Your task to perform on an android device: turn on notifications settings in the gmail app Image 0: 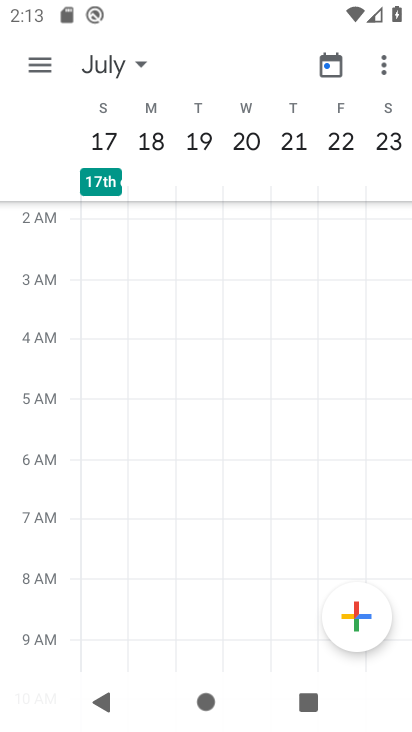
Step 0: press home button
Your task to perform on an android device: turn on notifications settings in the gmail app Image 1: 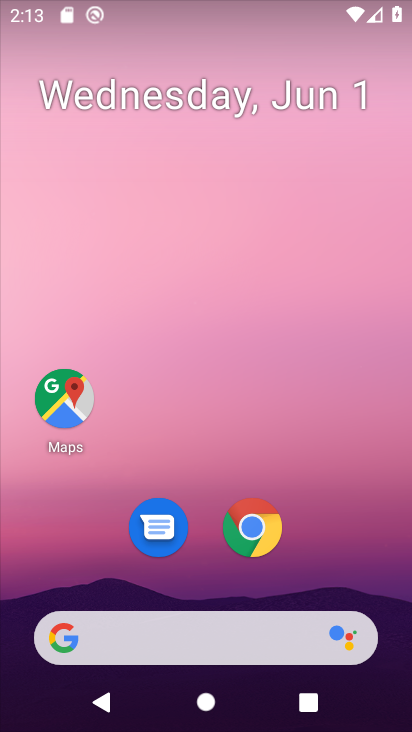
Step 1: drag from (225, 597) to (297, 152)
Your task to perform on an android device: turn on notifications settings in the gmail app Image 2: 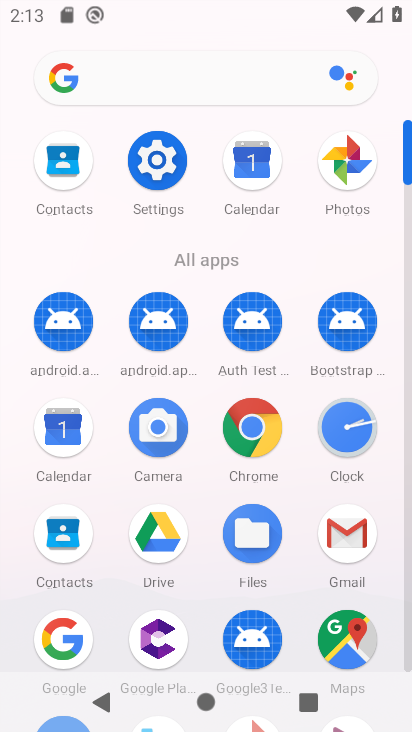
Step 2: click (340, 523)
Your task to perform on an android device: turn on notifications settings in the gmail app Image 3: 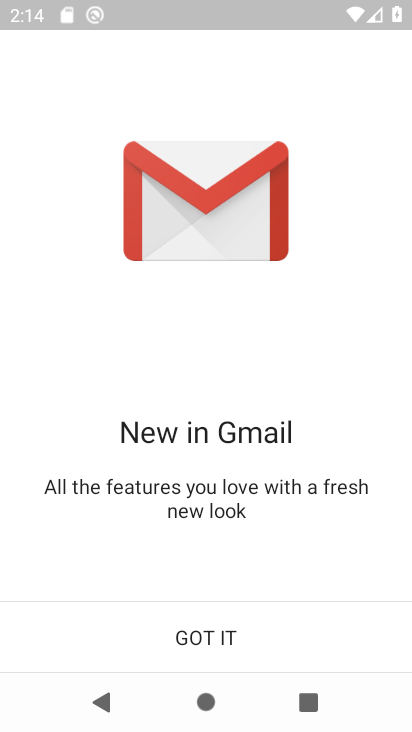
Step 3: click (177, 638)
Your task to perform on an android device: turn on notifications settings in the gmail app Image 4: 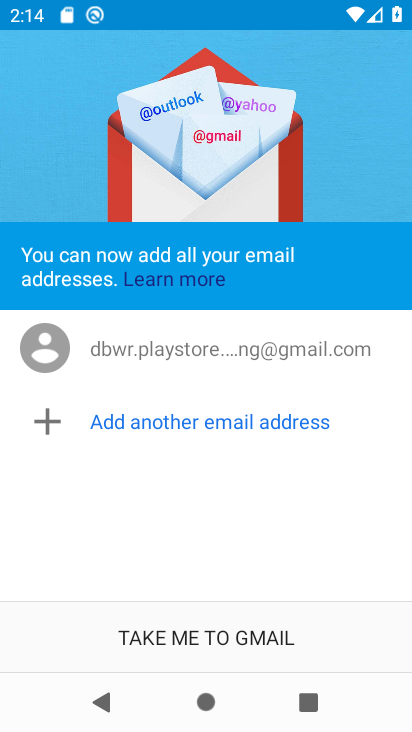
Step 4: click (132, 643)
Your task to perform on an android device: turn on notifications settings in the gmail app Image 5: 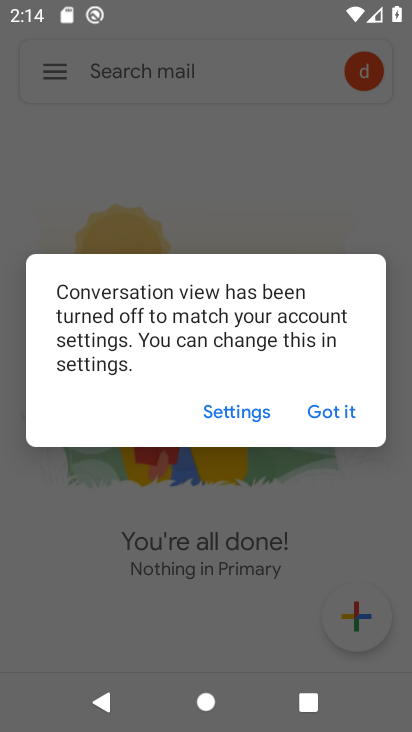
Step 5: click (246, 412)
Your task to perform on an android device: turn on notifications settings in the gmail app Image 6: 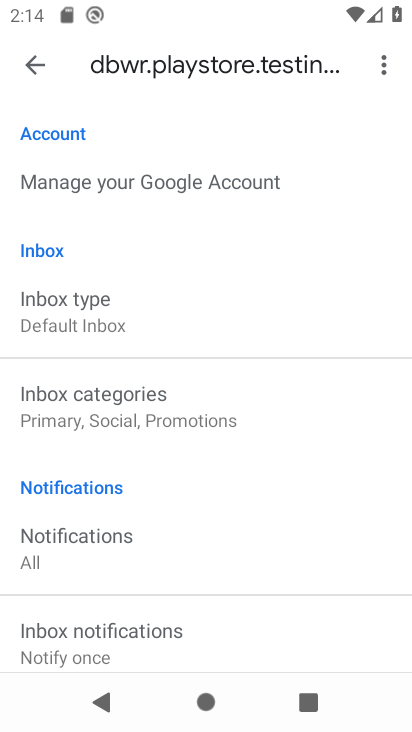
Step 6: click (37, 64)
Your task to perform on an android device: turn on notifications settings in the gmail app Image 7: 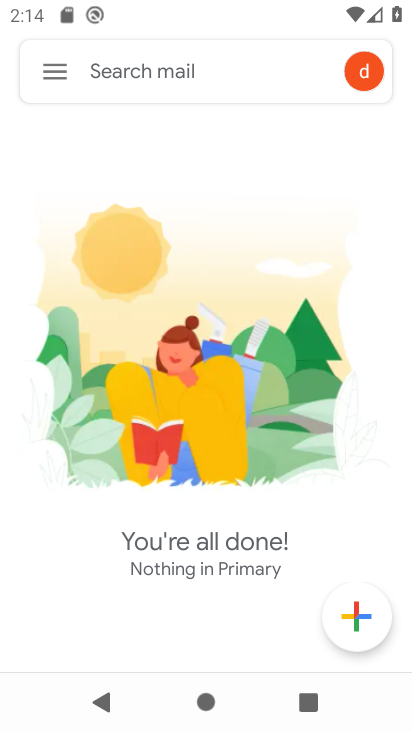
Step 7: click (63, 69)
Your task to perform on an android device: turn on notifications settings in the gmail app Image 8: 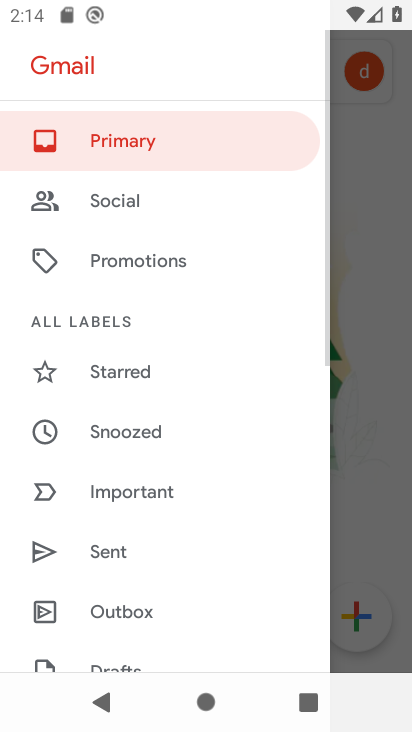
Step 8: drag from (93, 616) to (162, 239)
Your task to perform on an android device: turn on notifications settings in the gmail app Image 9: 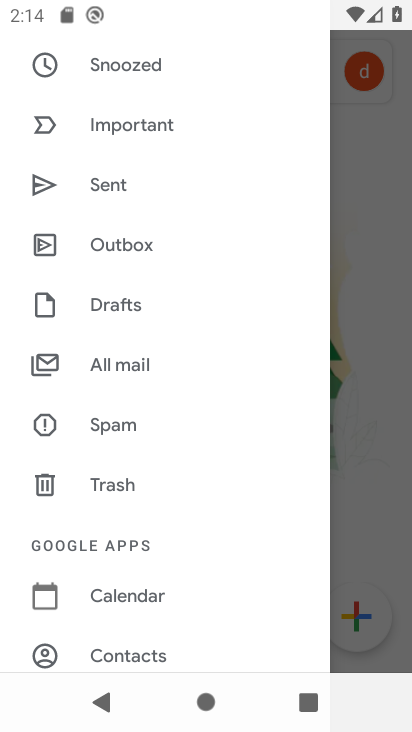
Step 9: drag from (137, 638) to (173, 84)
Your task to perform on an android device: turn on notifications settings in the gmail app Image 10: 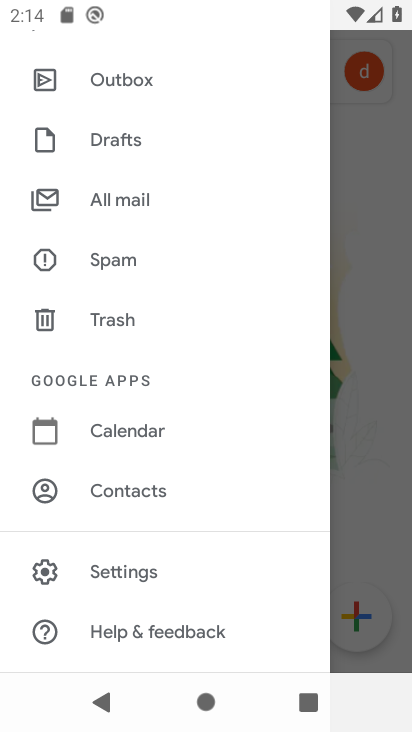
Step 10: click (138, 634)
Your task to perform on an android device: turn on notifications settings in the gmail app Image 11: 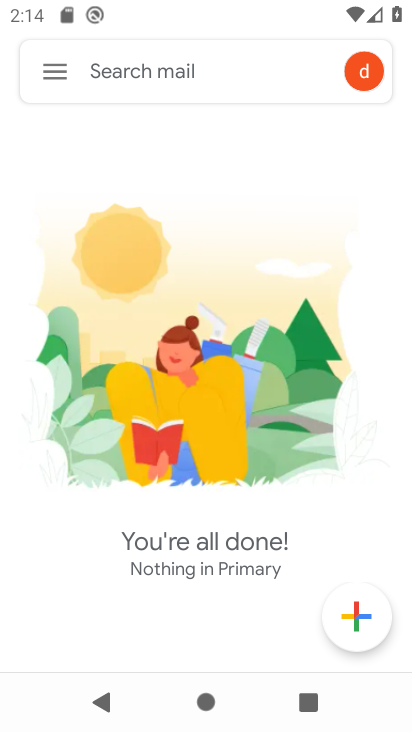
Step 11: click (112, 563)
Your task to perform on an android device: turn on notifications settings in the gmail app Image 12: 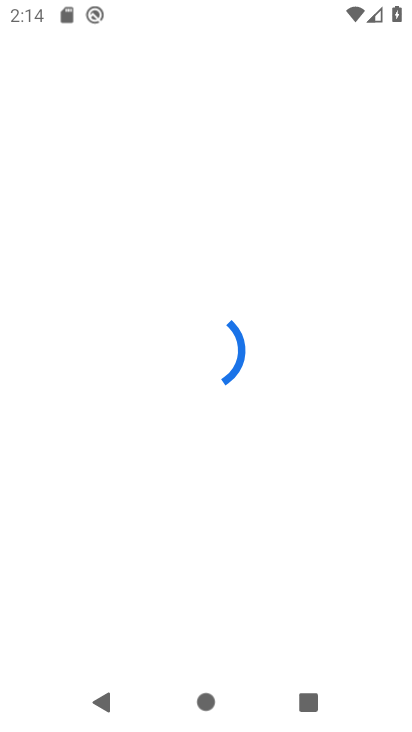
Step 12: click (46, 83)
Your task to perform on an android device: turn on notifications settings in the gmail app Image 13: 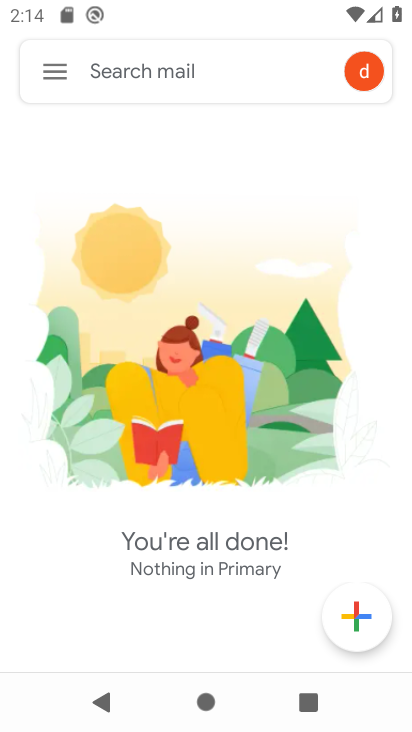
Step 13: click (41, 80)
Your task to perform on an android device: turn on notifications settings in the gmail app Image 14: 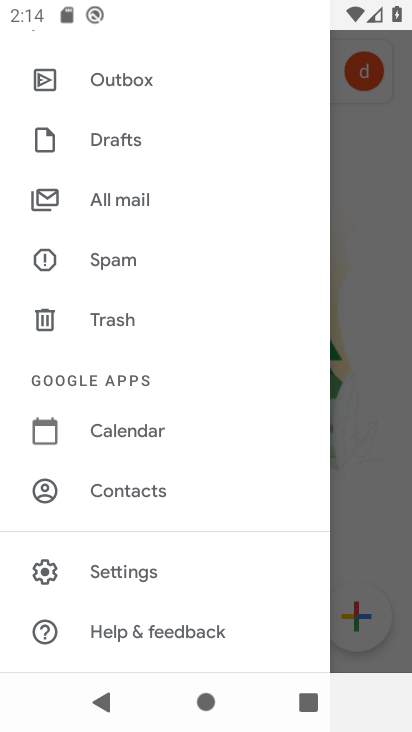
Step 14: click (109, 575)
Your task to perform on an android device: turn on notifications settings in the gmail app Image 15: 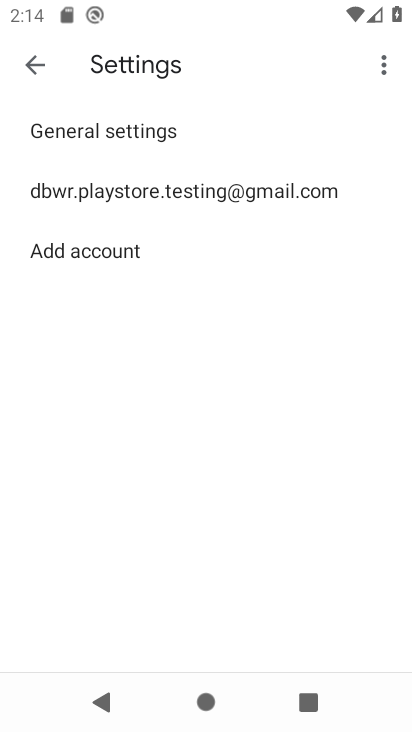
Step 15: click (119, 135)
Your task to perform on an android device: turn on notifications settings in the gmail app Image 16: 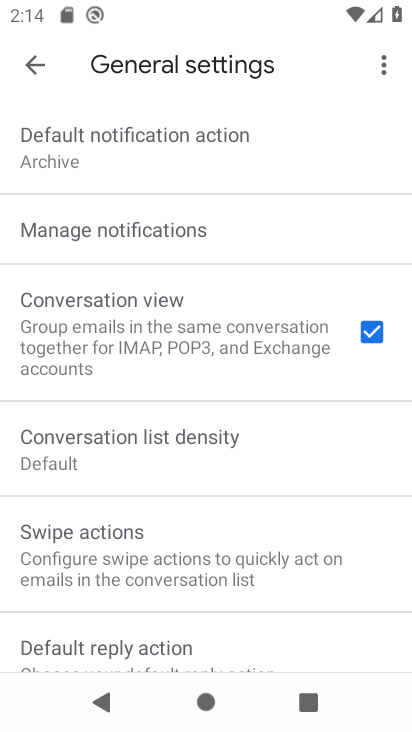
Step 16: click (154, 228)
Your task to perform on an android device: turn on notifications settings in the gmail app Image 17: 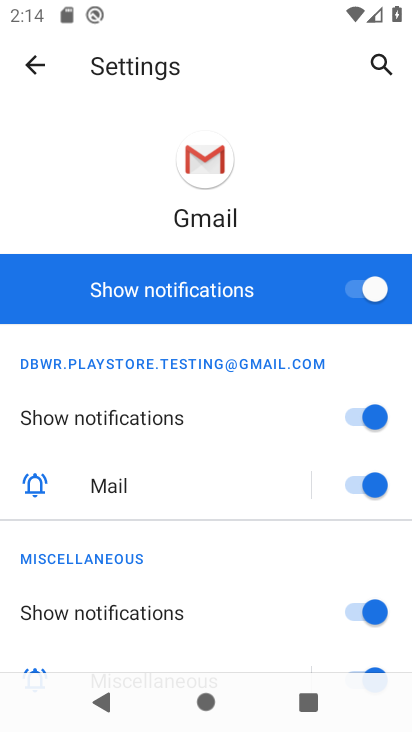
Step 17: task complete